Your task to perform on an android device: toggle sleep mode Image 0: 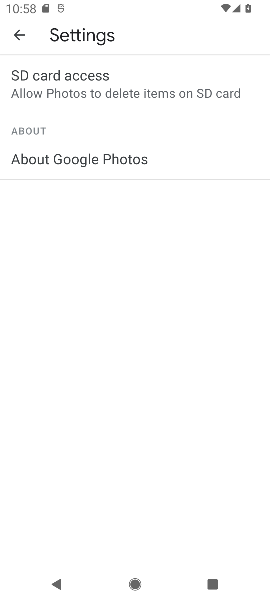
Step 0: press home button
Your task to perform on an android device: toggle sleep mode Image 1: 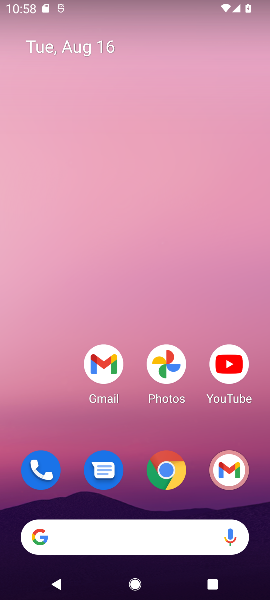
Step 1: drag from (60, 407) to (119, 15)
Your task to perform on an android device: toggle sleep mode Image 2: 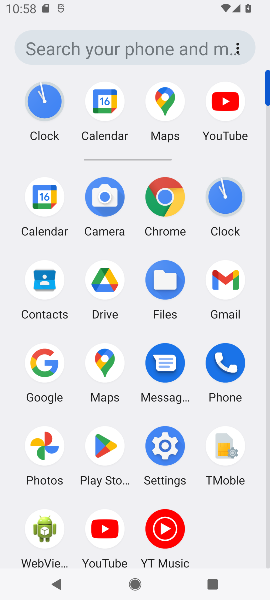
Step 2: click (170, 440)
Your task to perform on an android device: toggle sleep mode Image 3: 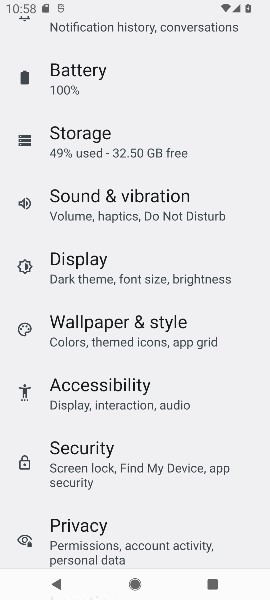
Step 3: drag from (117, 487) to (160, 126)
Your task to perform on an android device: toggle sleep mode Image 4: 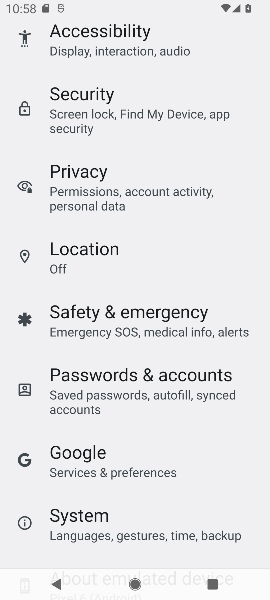
Step 4: drag from (125, 270) to (92, 536)
Your task to perform on an android device: toggle sleep mode Image 5: 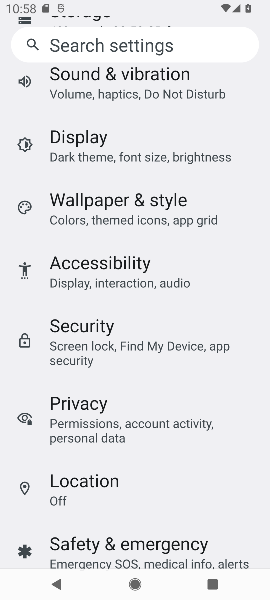
Step 5: drag from (148, 204) to (109, 558)
Your task to perform on an android device: toggle sleep mode Image 6: 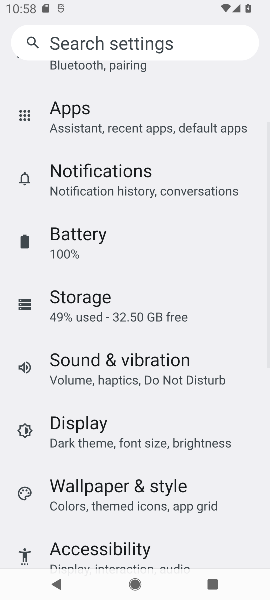
Step 6: drag from (121, 298) to (91, 505)
Your task to perform on an android device: toggle sleep mode Image 7: 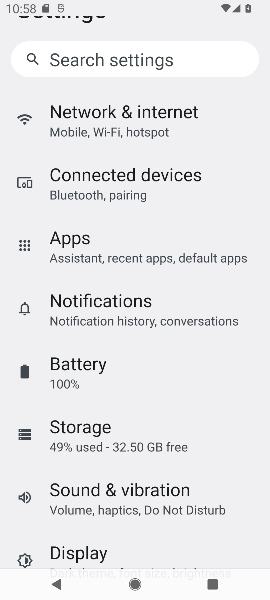
Step 7: click (190, 51)
Your task to perform on an android device: toggle sleep mode Image 8: 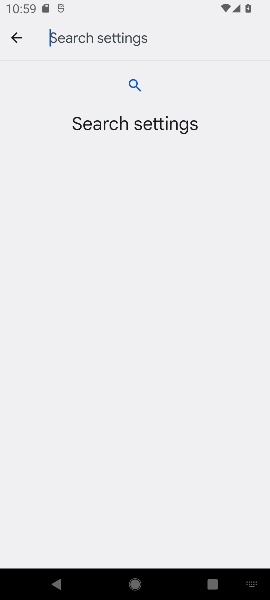
Step 8: type "sleep mode"
Your task to perform on an android device: toggle sleep mode Image 9: 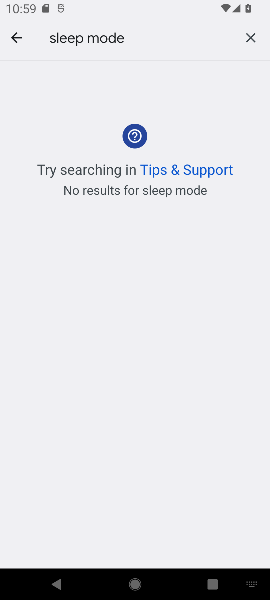
Step 9: click (212, 162)
Your task to perform on an android device: toggle sleep mode Image 10: 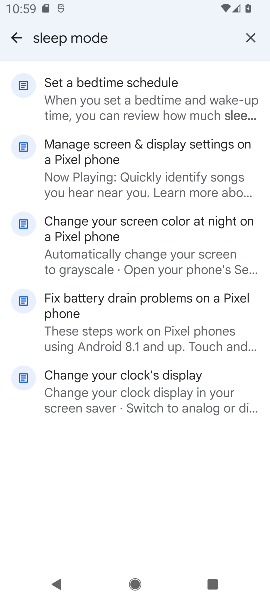
Step 10: task complete